Your task to perform on an android device: Show the shopping cart on walmart.com. Search for macbook pro 15 inch on walmart.com, select the first entry, add it to the cart, then select checkout. Image 0: 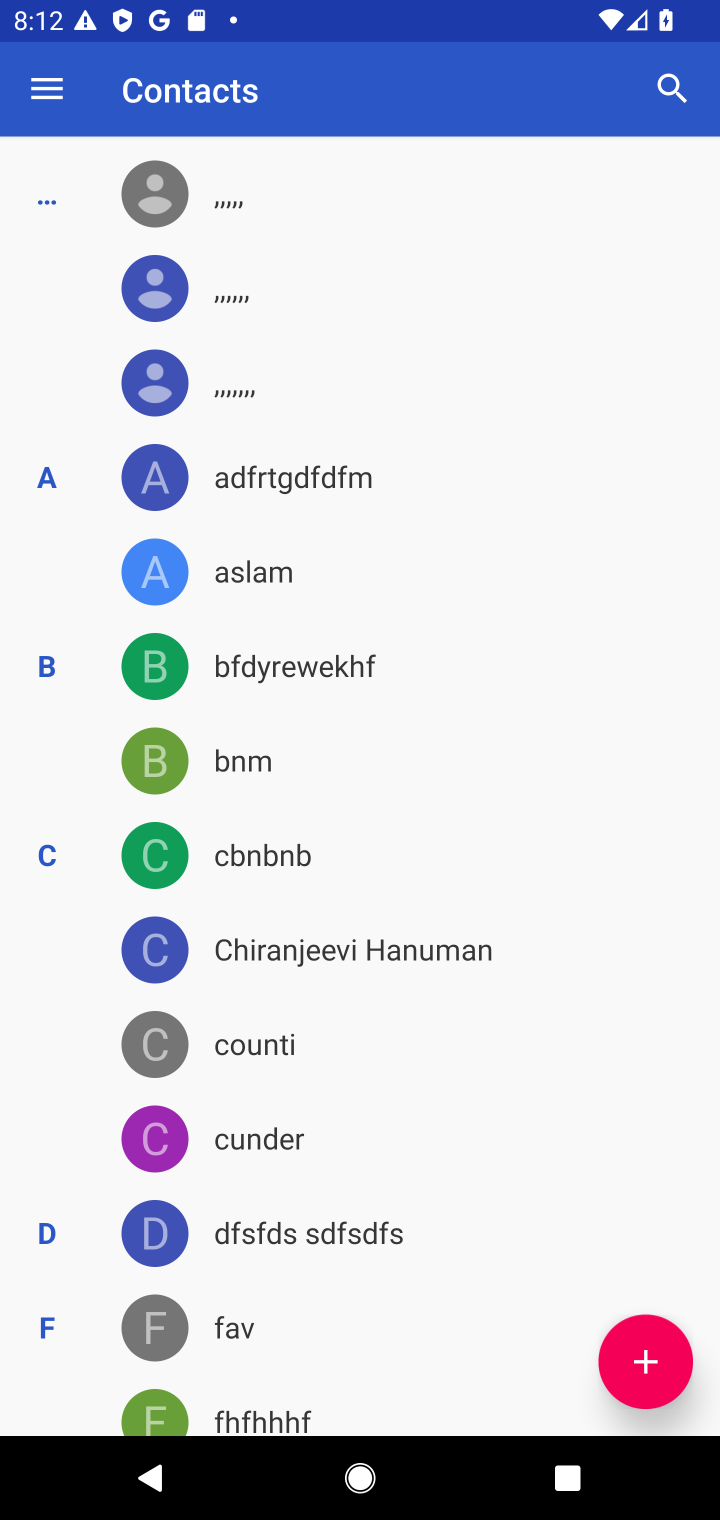
Step 0: press home button
Your task to perform on an android device: Show the shopping cart on walmart.com. Search for macbook pro 15 inch on walmart.com, select the first entry, add it to the cart, then select checkout. Image 1: 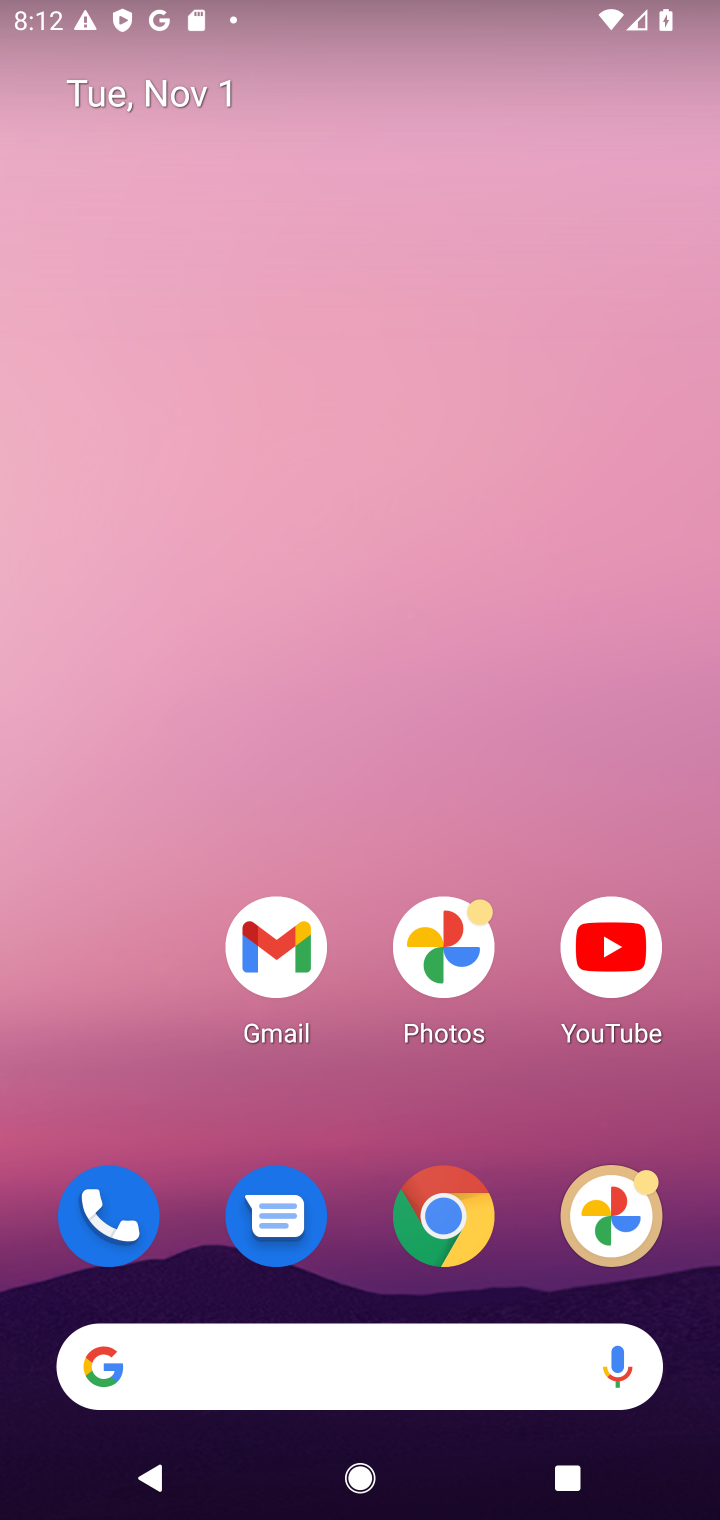
Step 1: click (432, 1196)
Your task to perform on an android device: Show the shopping cart on walmart.com. Search for macbook pro 15 inch on walmart.com, select the first entry, add it to the cart, then select checkout. Image 2: 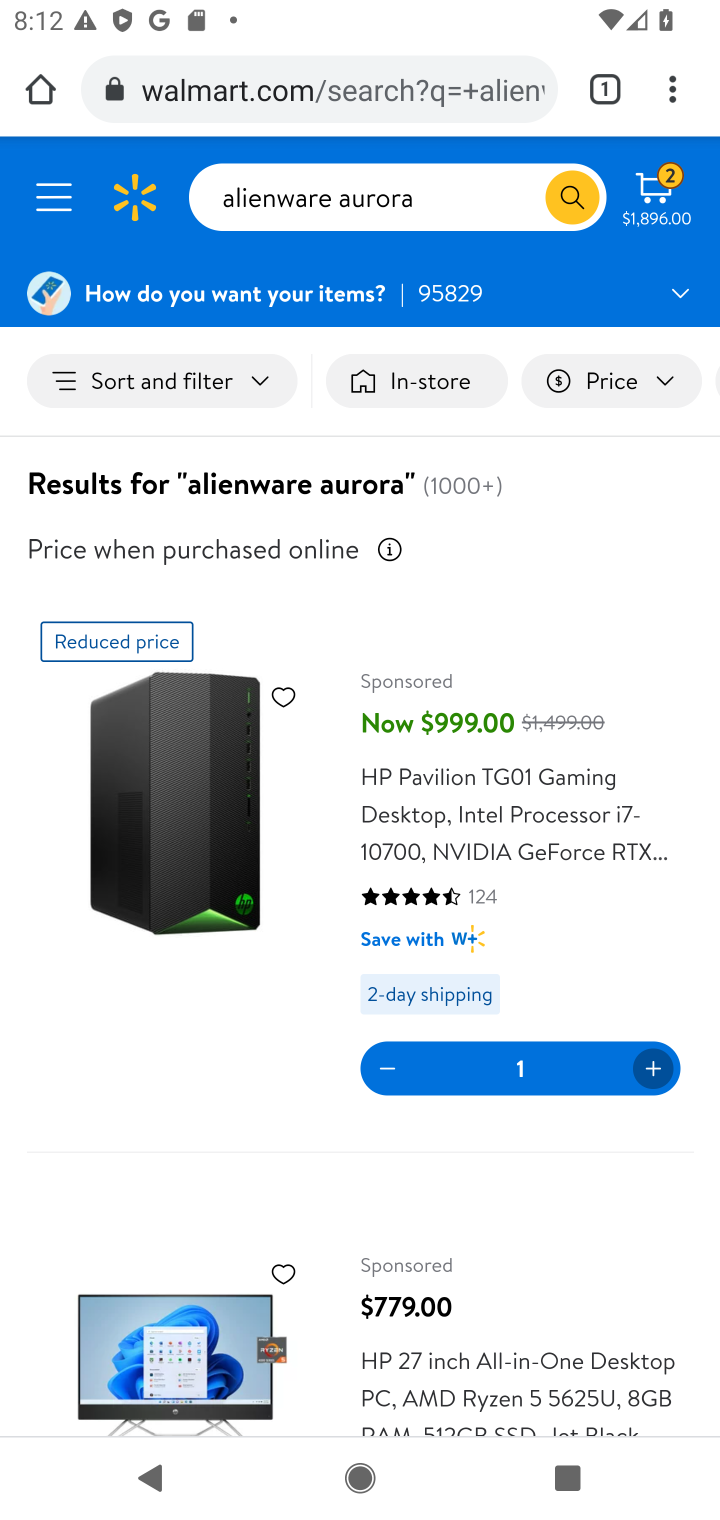
Step 2: click (660, 167)
Your task to perform on an android device: Show the shopping cart on walmart.com. Search for macbook pro 15 inch on walmart.com, select the first entry, add it to the cart, then select checkout. Image 3: 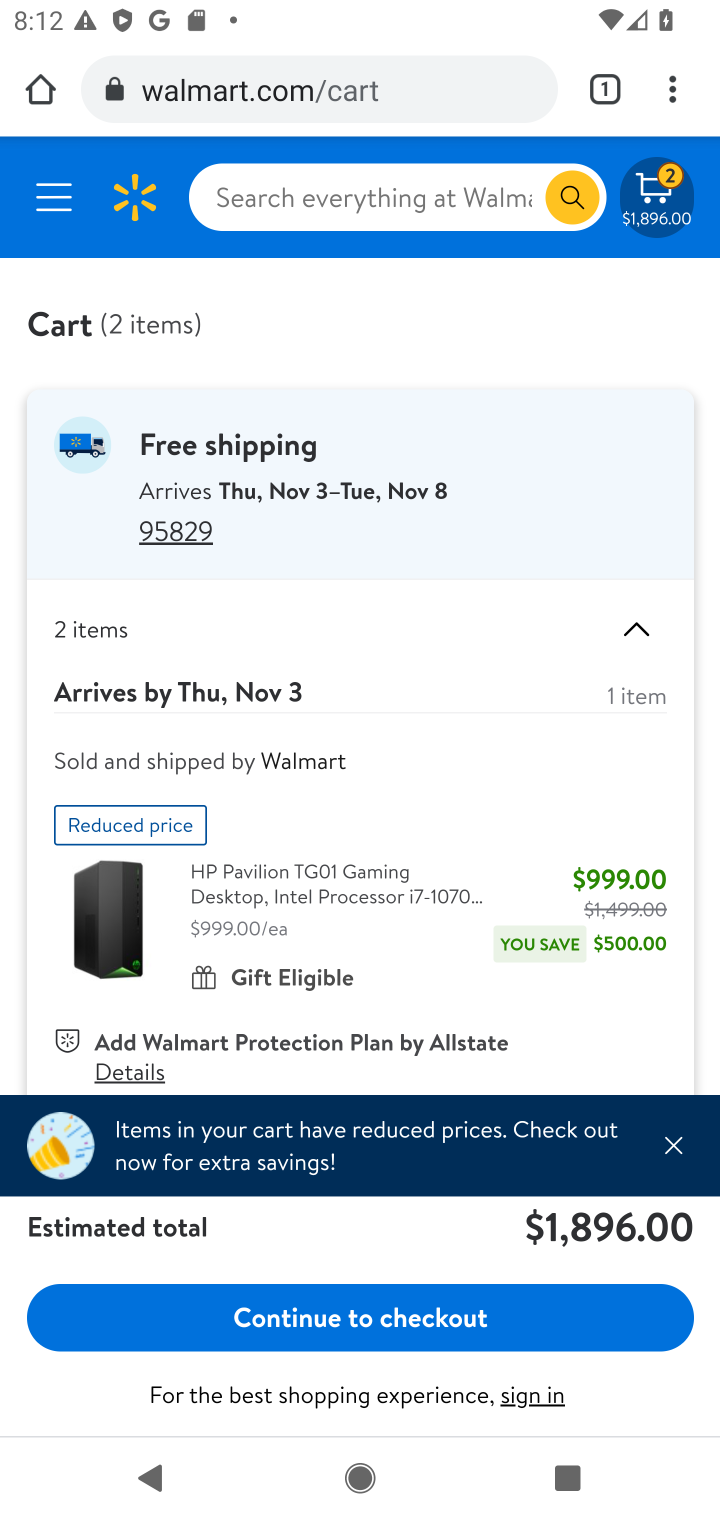
Step 3: click (398, 196)
Your task to perform on an android device: Show the shopping cart on walmart.com. Search for macbook pro 15 inch on walmart.com, select the first entry, add it to the cart, then select checkout. Image 4: 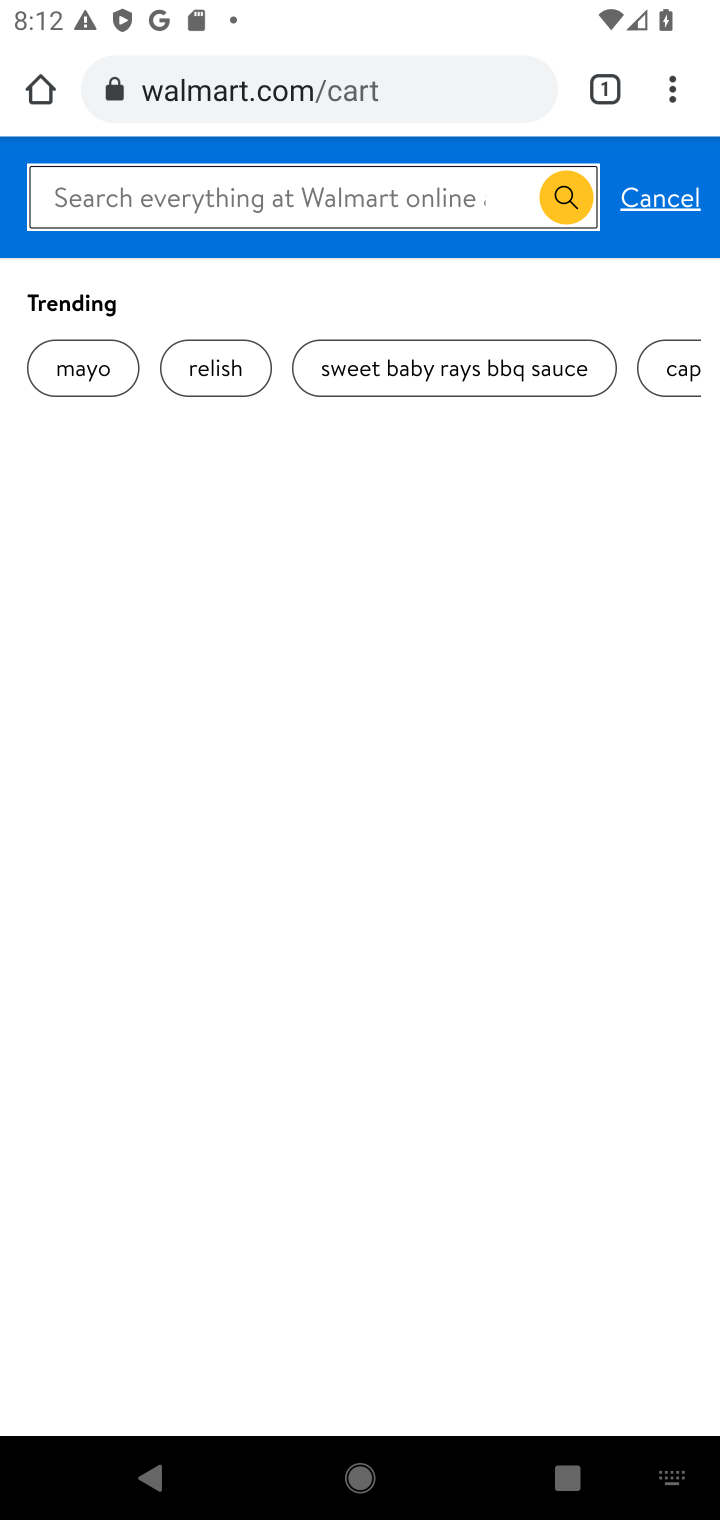
Step 4: type "macbook pro 15 inch"
Your task to perform on an android device: Show the shopping cart on walmart.com. Search for macbook pro 15 inch on walmart.com, select the first entry, add it to the cart, then select checkout. Image 5: 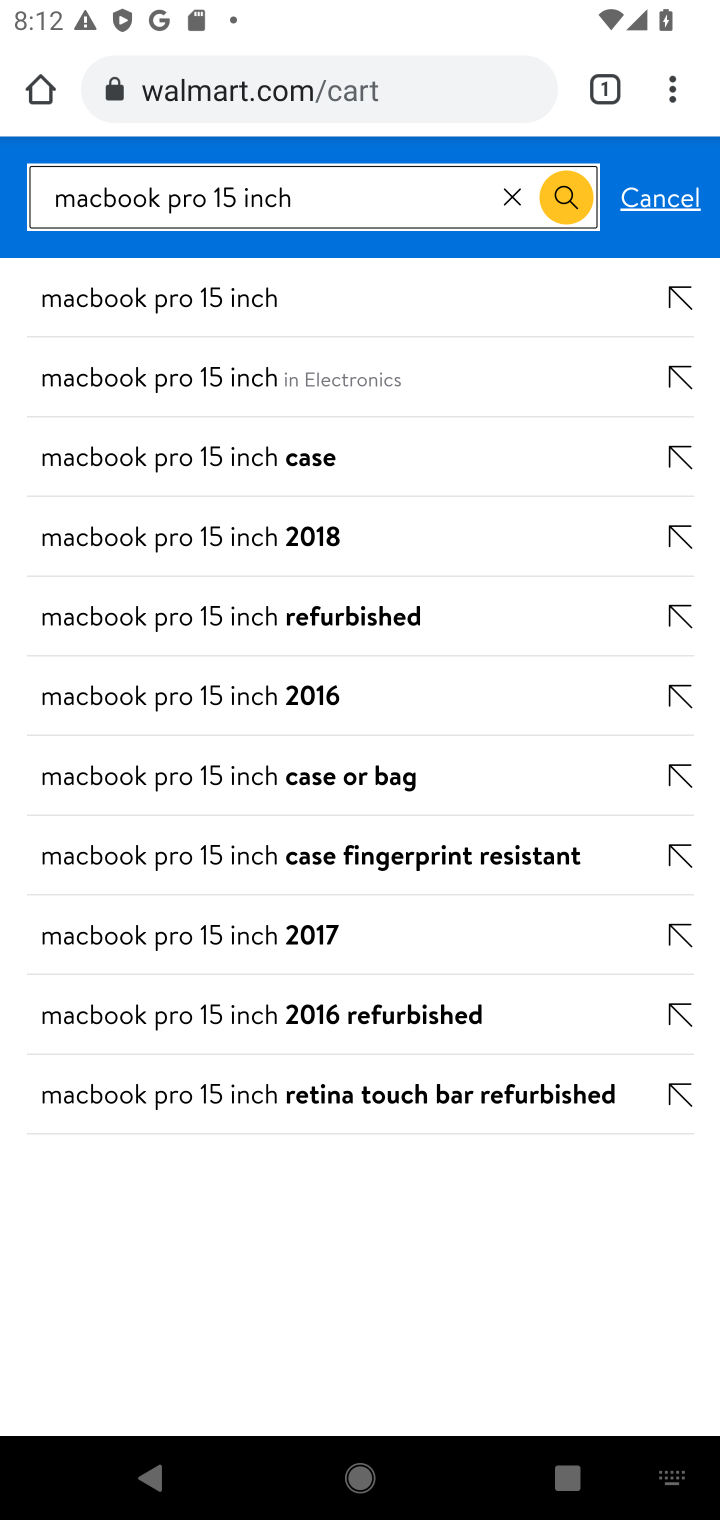
Step 5: click (565, 191)
Your task to perform on an android device: Show the shopping cart on walmart.com. Search for macbook pro 15 inch on walmart.com, select the first entry, add it to the cart, then select checkout. Image 6: 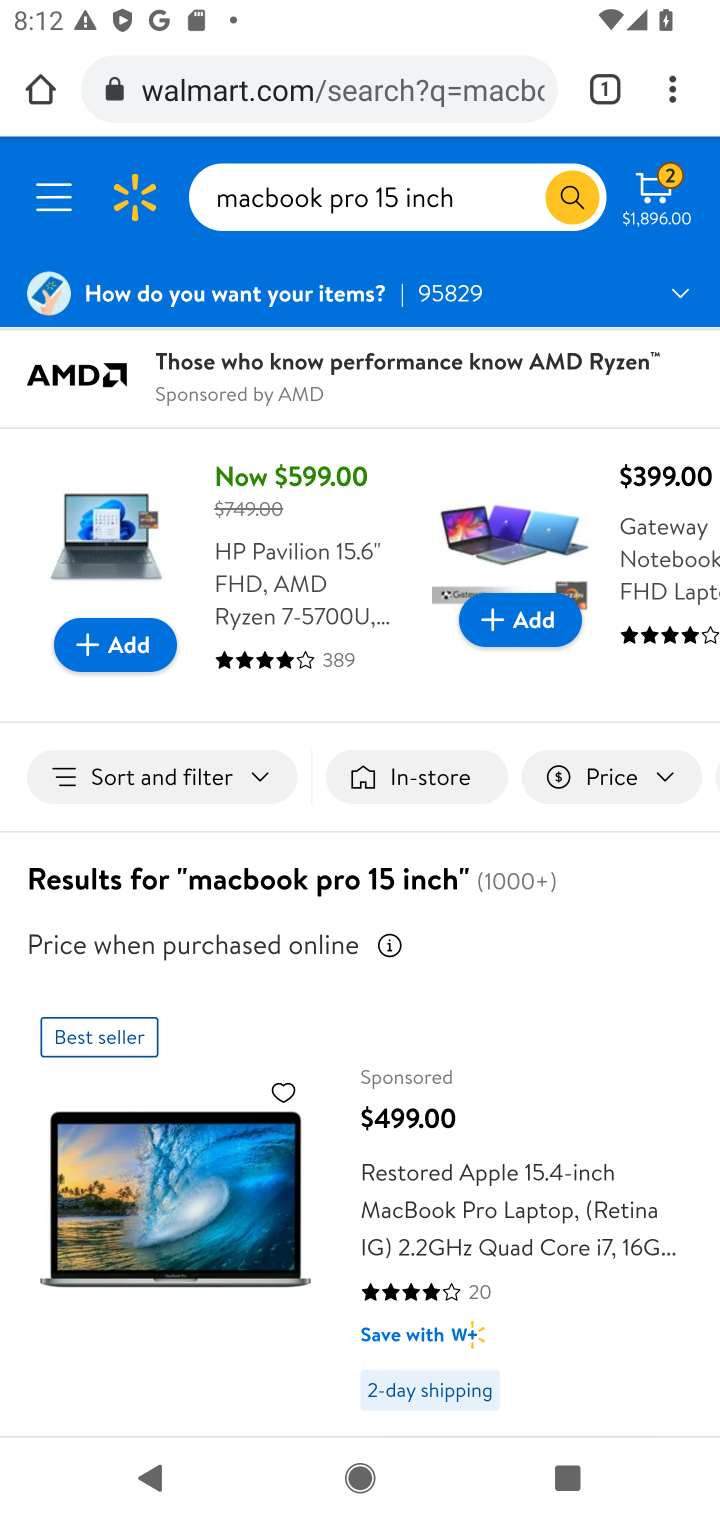
Step 6: drag from (471, 1160) to (411, 828)
Your task to perform on an android device: Show the shopping cart on walmart.com. Search for macbook pro 15 inch on walmart.com, select the first entry, add it to the cart, then select checkout. Image 7: 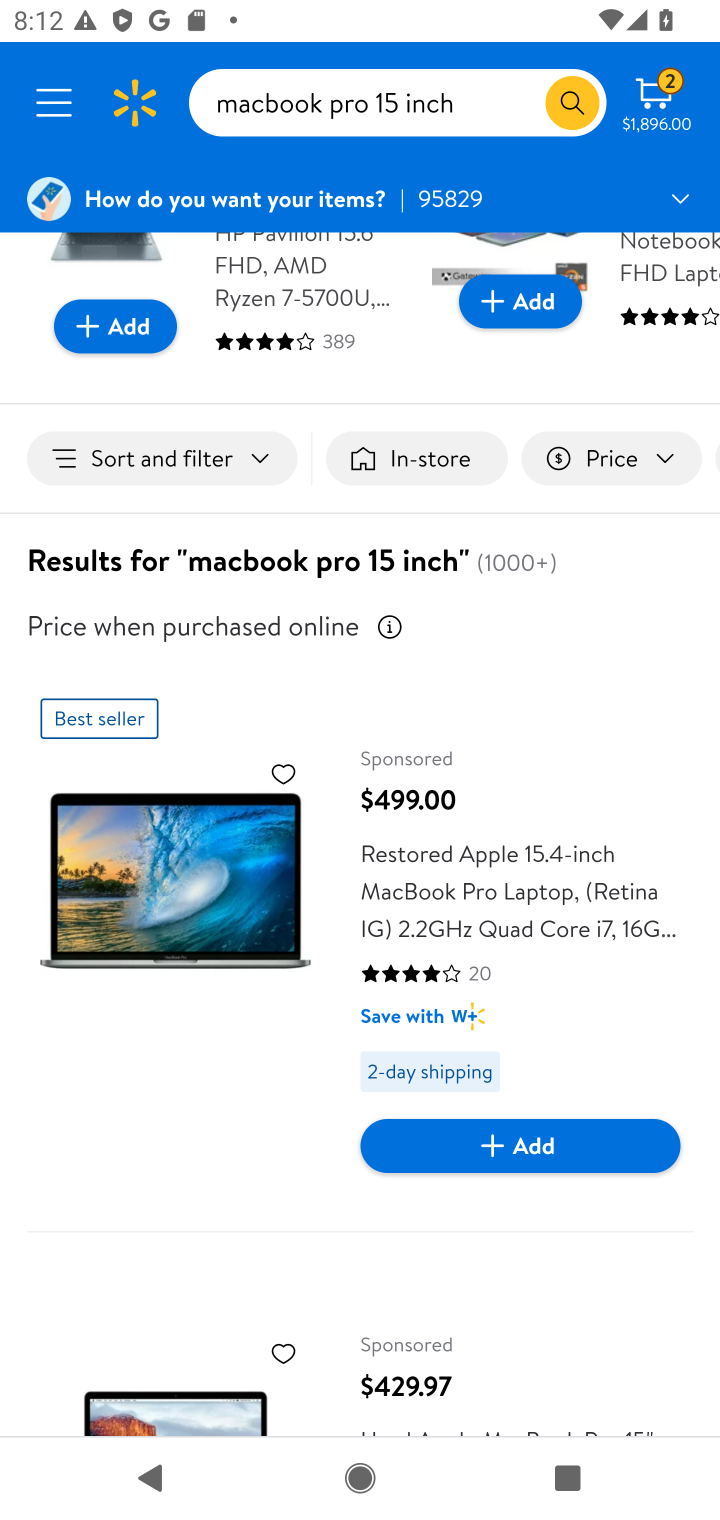
Step 7: click (508, 1144)
Your task to perform on an android device: Show the shopping cart on walmart.com. Search for macbook pro 15 inch on walmart.com, select the first entry, add it to the cart, then select checkout. Image 8: 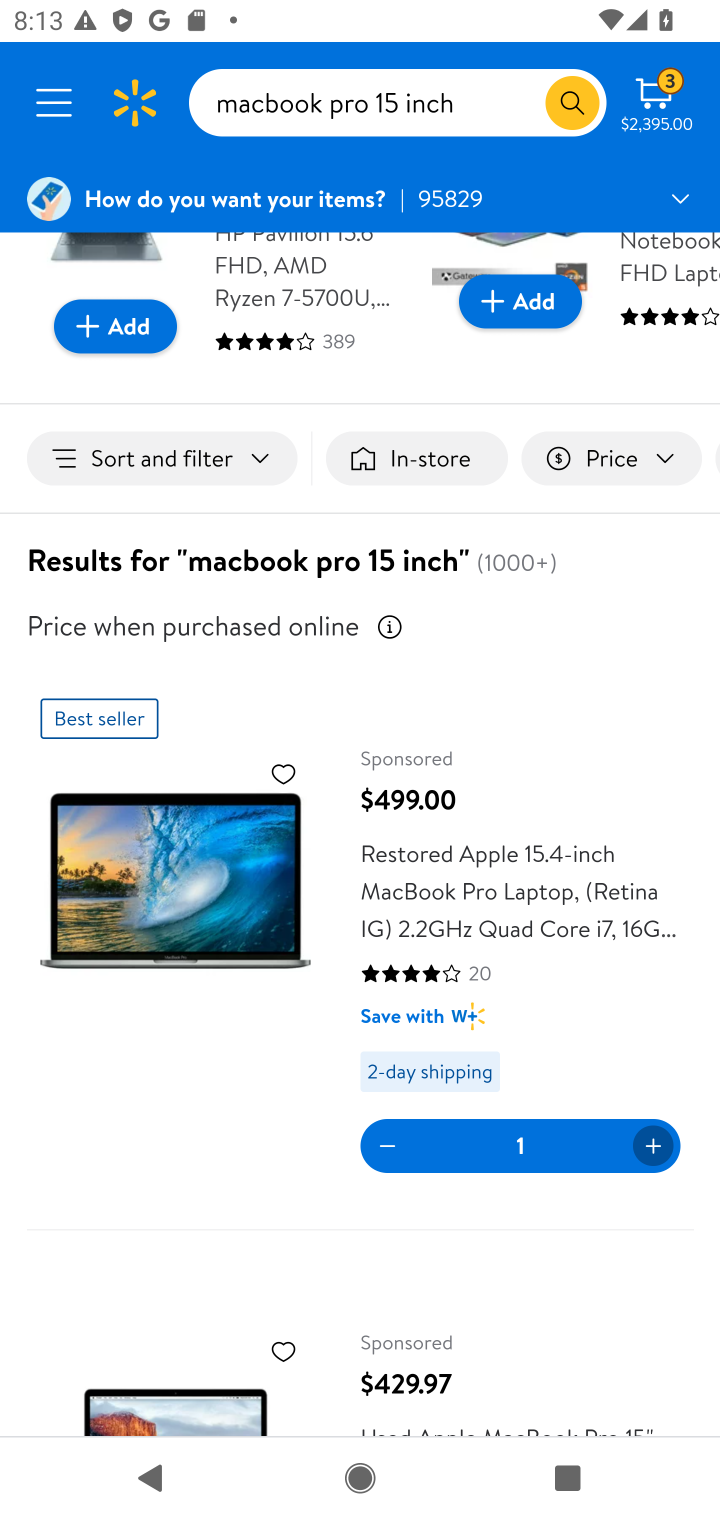
Step 8: click (658, 88)
Your task to perform on an android device: Show the shopping cart on walmart.com. Search for macbook pro 15 inch on walmart.com, select the first entry, add it to the cart, then select checkout. Image 9: 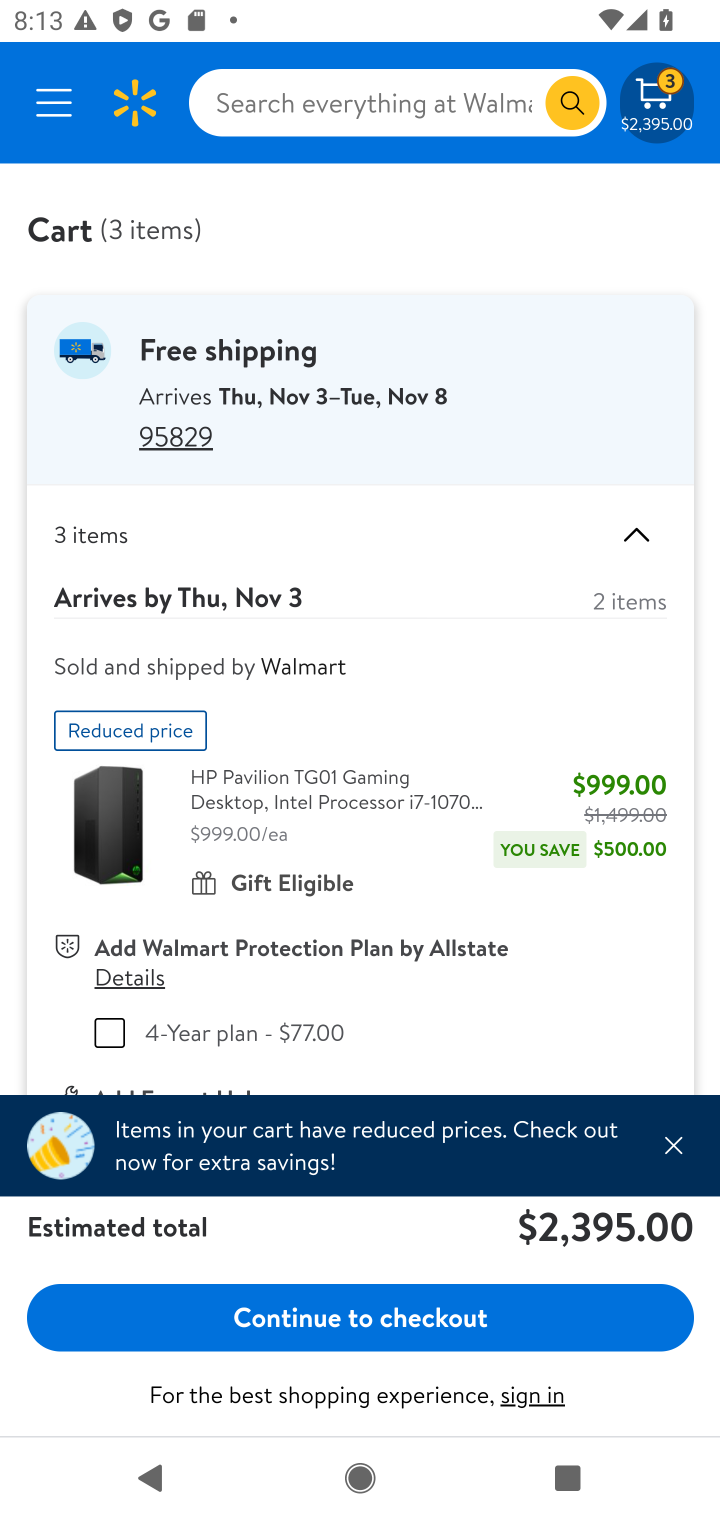
Step 9: click (487, 1320)
Your task to perform on an android device: Show the shopping cart on walmart.com. Search for macbook pro 15 inch on walmart.com, select the first entry, add it to the cart, then select checkout. Image 10: 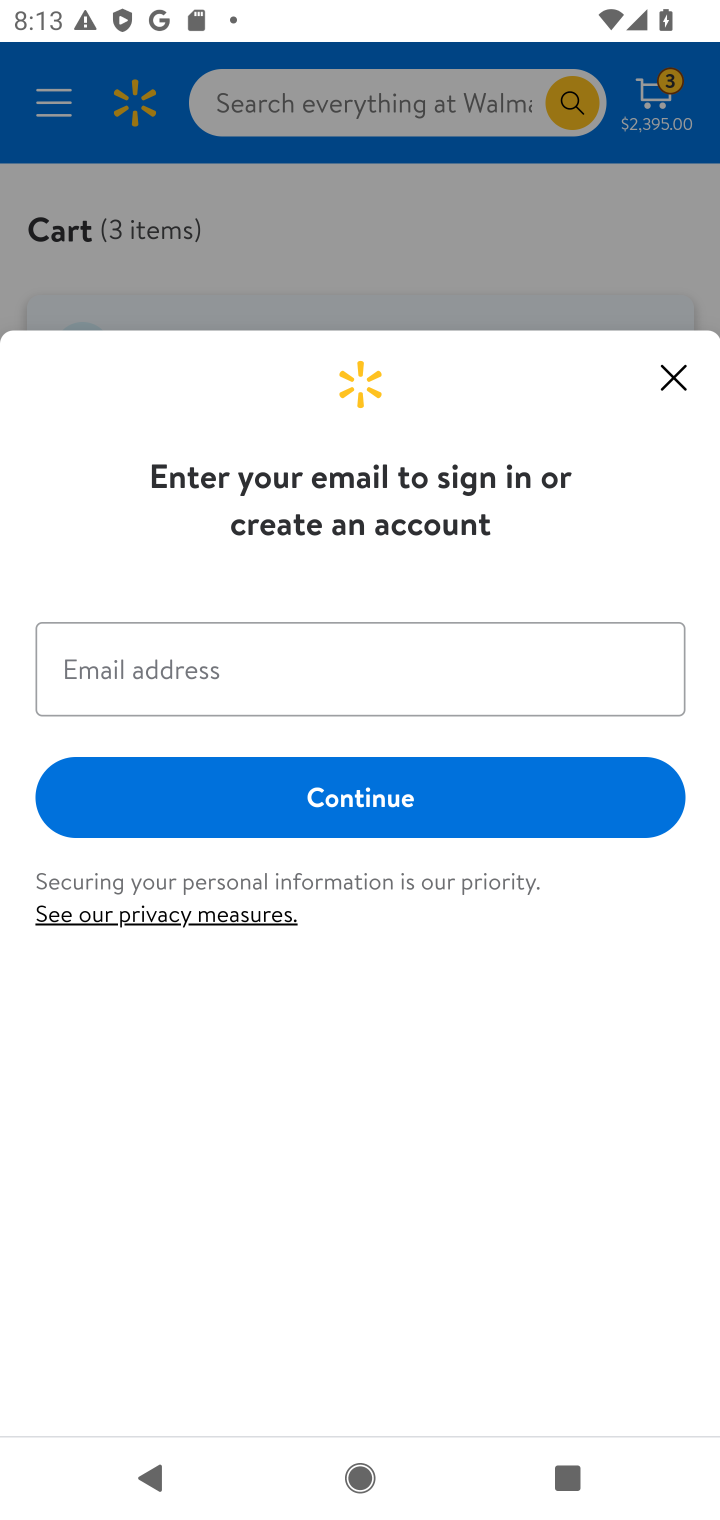
Step 10: task complete